Your task to perform on an android device: snooze an email in the gmail app Image 0: 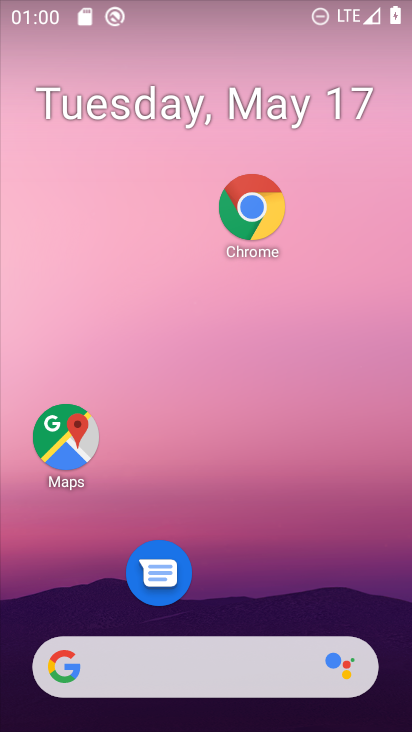
Step 0: drag from (282, 648) to (296, 13)
Your task to perform on an android device: snooze an email in the gmail app Image 1: 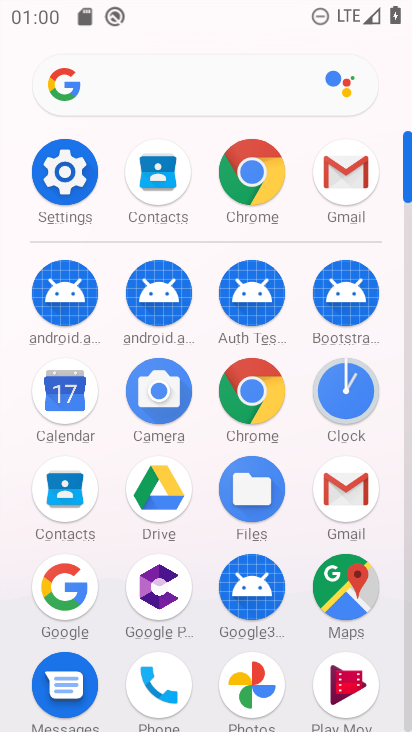
Step 1: click (347, 499)
Your task to perform on an android device: snooze an email in the gmail app Image 2: 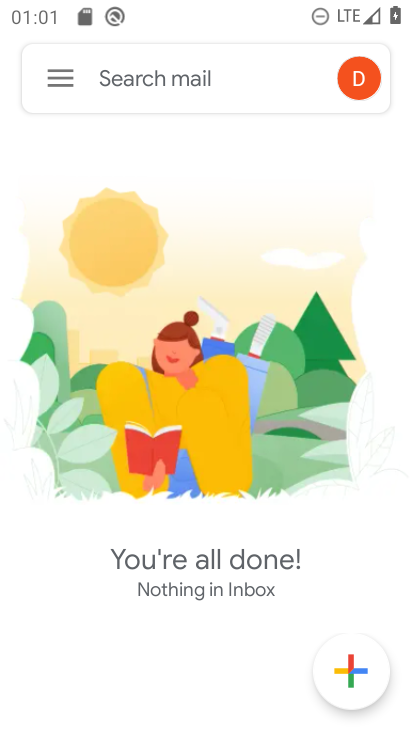
Step 2: click (64, 81)
Your task to perform on an android device: snooze an email in the gmail app Image 3: 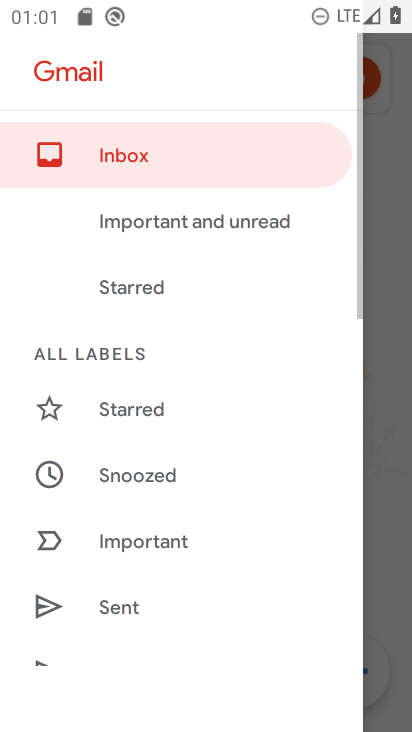
Step 3: click (144, 476)
Your task to perform on an android device: snooze an email in the gmail app Image 4: 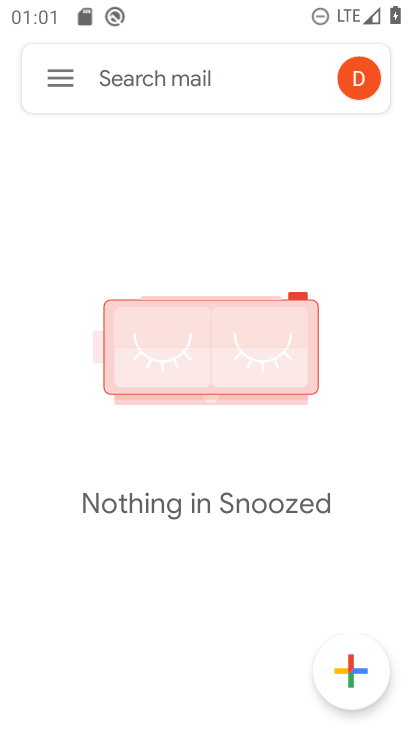
Step 4: task complete